Your task to perform on an android device: change your default location settings in chrome Image 0: 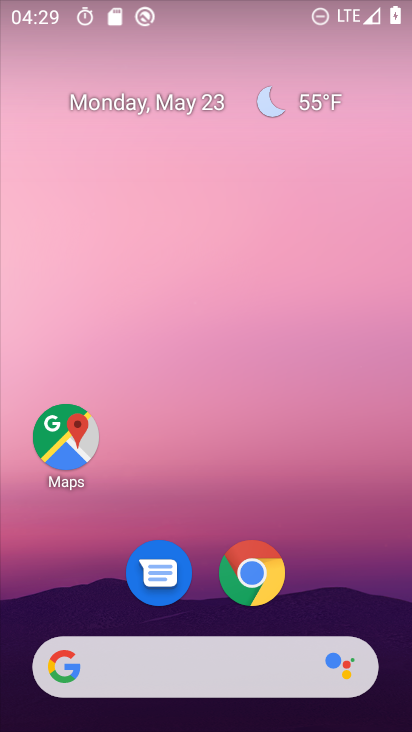
Step 0: click (254, 575)
Your task to perform on an android device: change your default location settings in chrome Image 1: 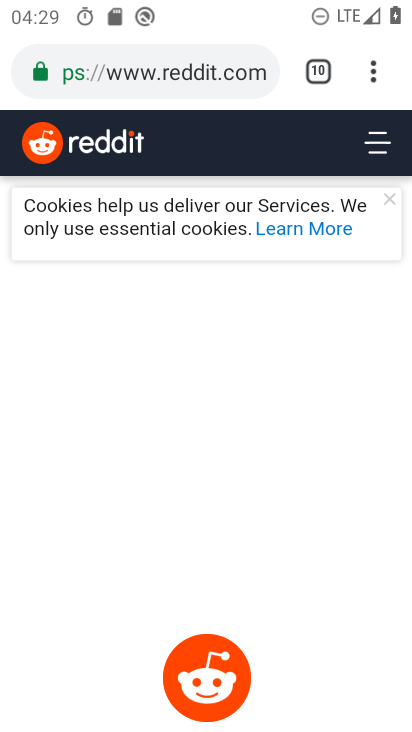
Step 1: click (383, 73)
Your task to perform on an android device: change your default location settings in chrome Image 2: 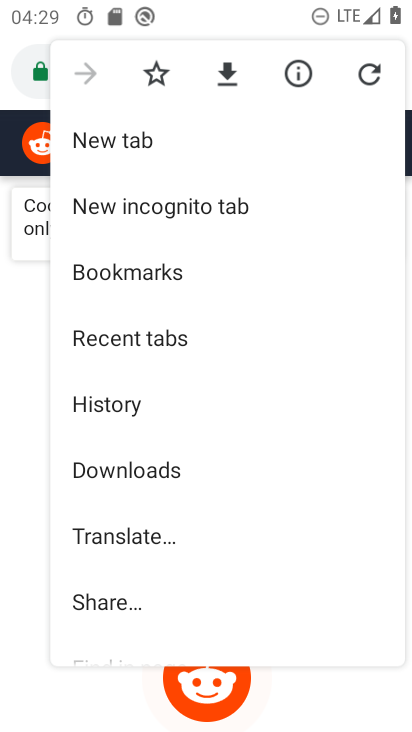
Step 2: drag from (210, 547) to (199, 138)
Your task to perform on an android device: change your default location settings in chrome Image 3: 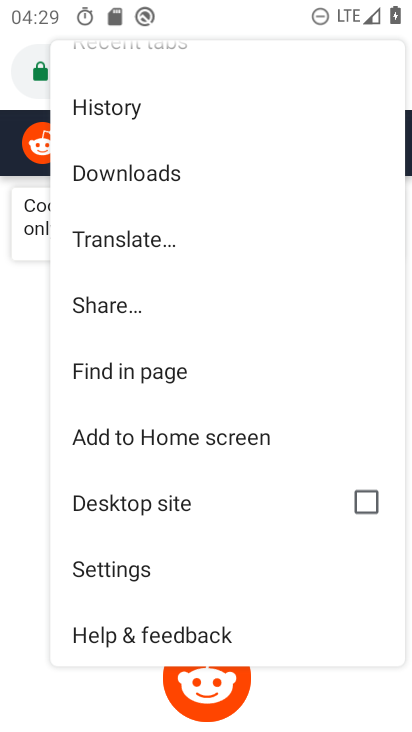
Step 3: click (133, 561)
Your task to perform on an android device: change your default location settings in chrome Image 4: 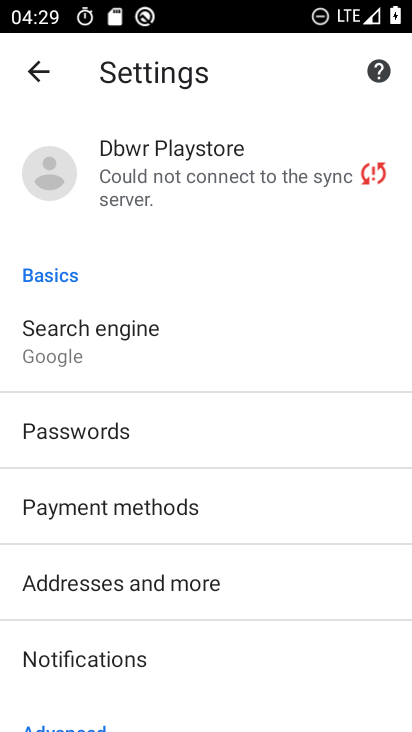
Step 4: drag from (261, 596) to (240, 244)
Your task to perform on an android device: change your default location settings in chrome Image 5: 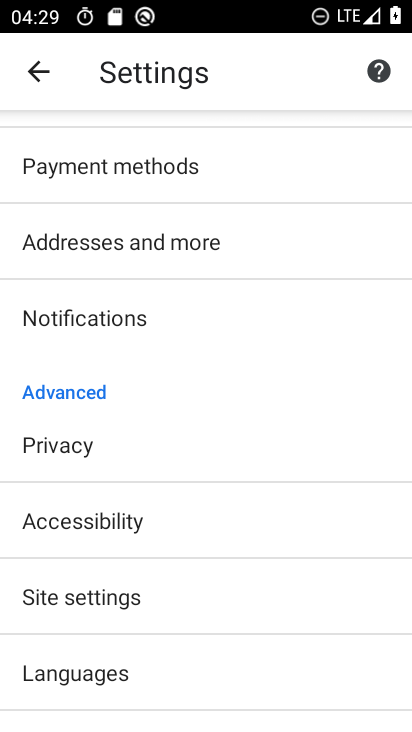
Step 5: click (138, 602)
Your task to perform on an android device: change your default location settings in chrome Image 6: 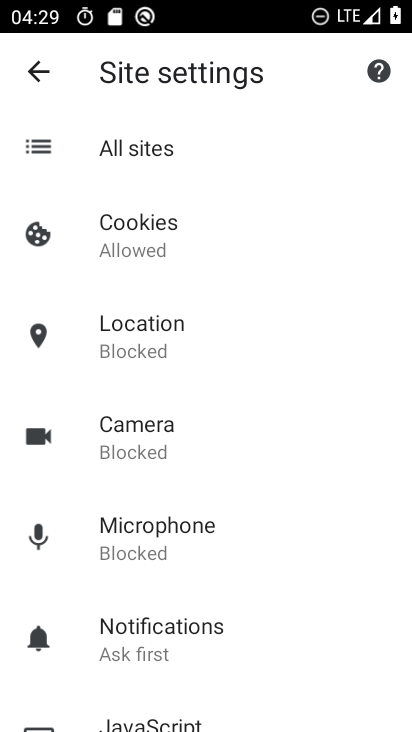
Step 6: click (130, 350)
Your task to perform on an android device: change your default location settings in chrome Image 7: 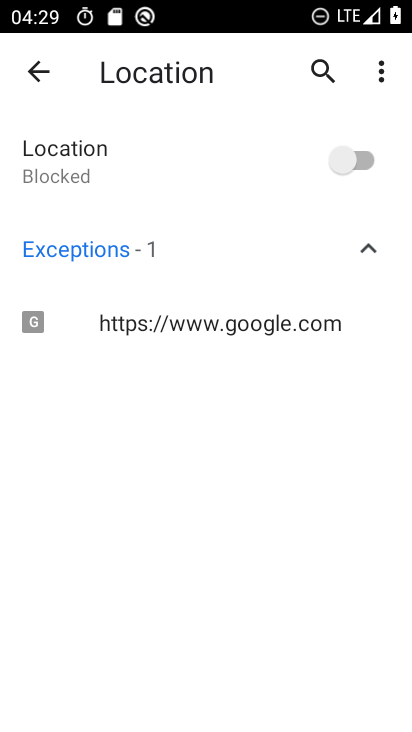
Step 7: click (367, 154)
Your task to perform on an android device: change your default location settings in chrome Image 8: 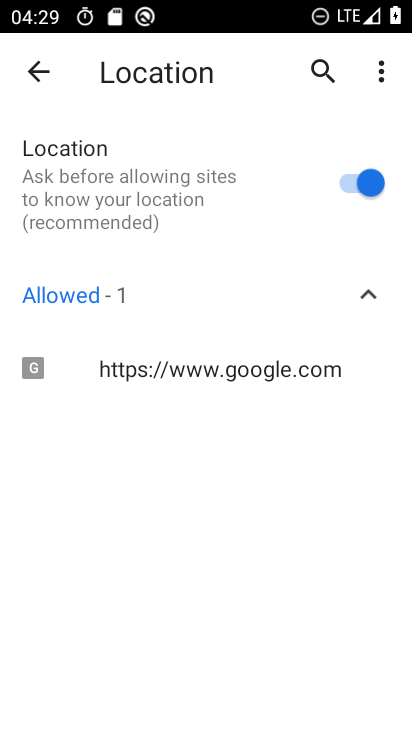
Step 8: task complete